Your task to perform on an android device: turn pop-ups on in chrome Image 0: 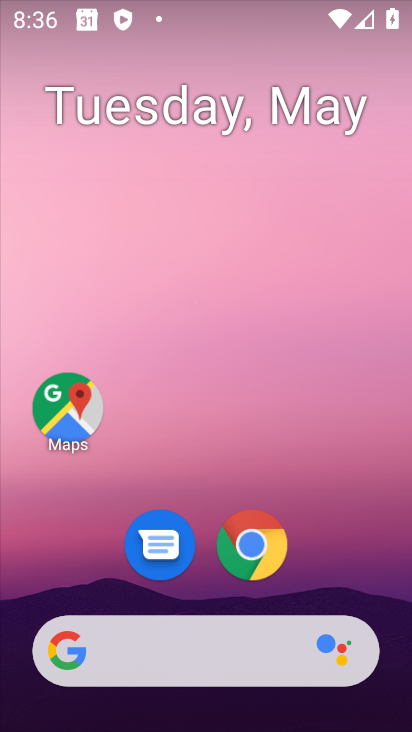
Step 0: drag from (351, 542) to (351, 261)
Your task to perform on an android device: turn pop-ups on in chrome Image 1: 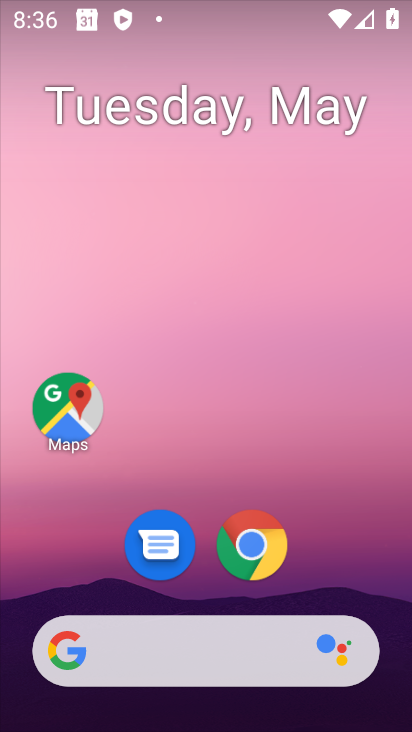
Step 1: drag from (370, 548) to (344, 151)
Your task to perform on an android device: turn pop-ups on in chrome Image 2: 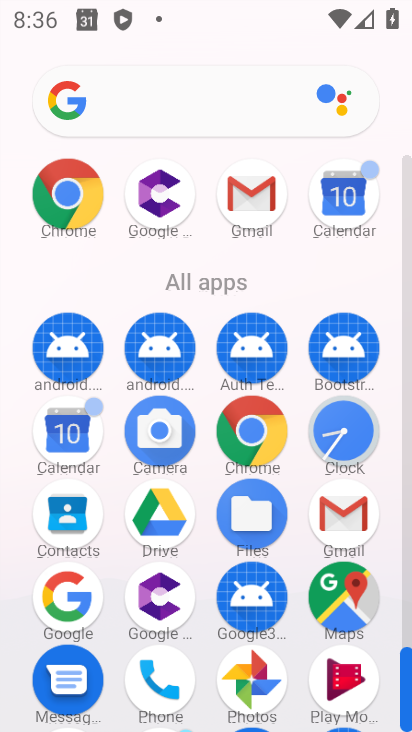
Step 2: click (258, 443)
Your task to perform on an android device: turn pop-ups on in chrome Image 3: 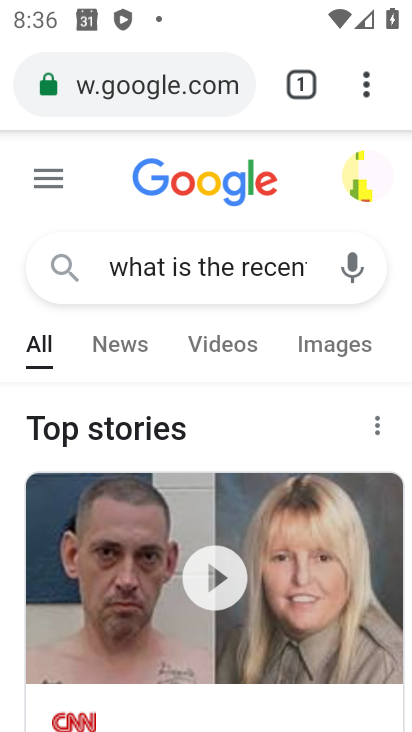
Step 3: drag from (366, 94) to (182, 615)
Your task to perform on an android device: turn pop-ups on in chrome Image 4: 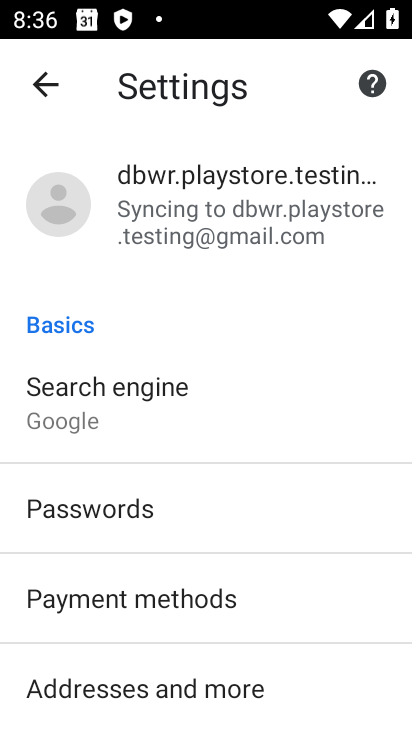
Step 4: drag from (302, 675) to (294, 306)
Your task to perform on an android device: turn pop-ups on in chrome Image 5: 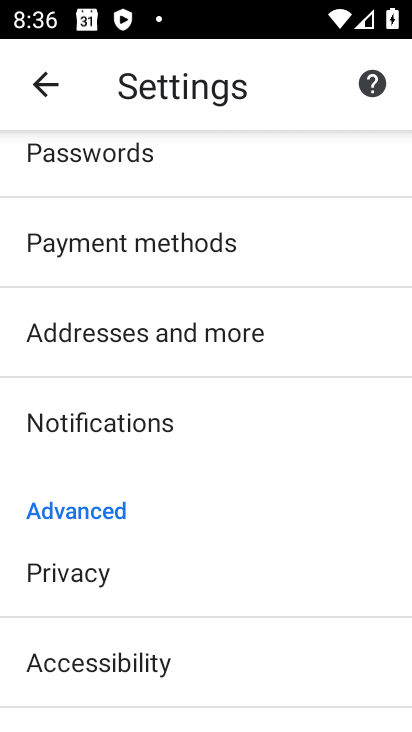
Step 5: drag from (300, 627) to (305, 269)
Your task to perform on an android device: turn pop-ups on in chrome Image 6: 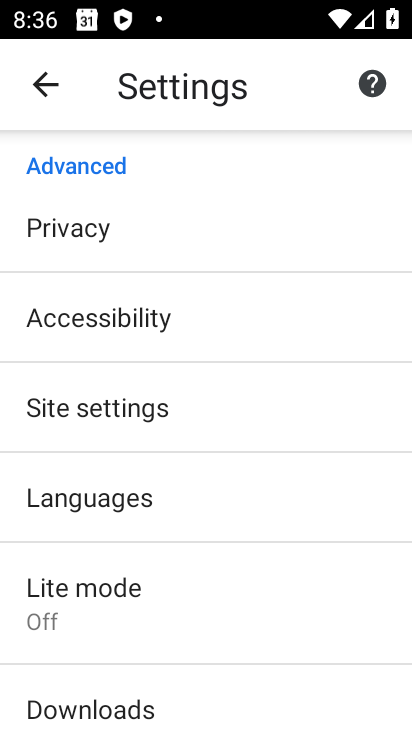
Step 6: click (162, 402)
Your task to perform on an android device: turn pop-ups on in chrome Image 7: 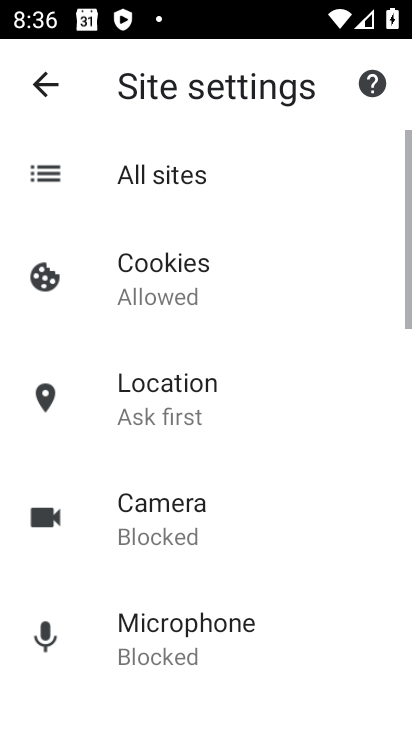
Step 7: drag from (294, 587) to (302, 255)
Your task to perform on an android device: turn pop-ups on in chrome Image 8: 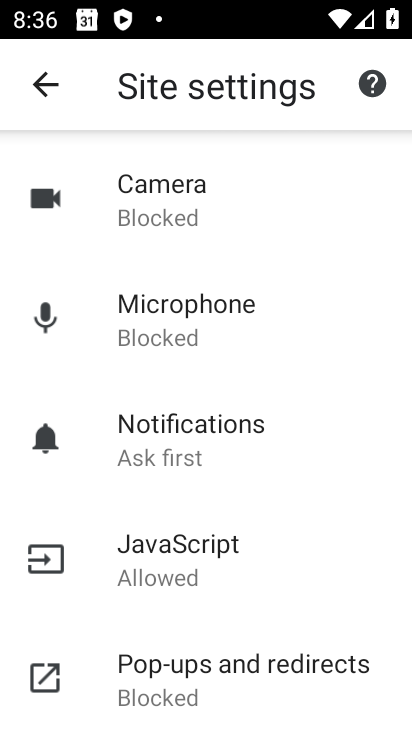
Step 8: click (304, 662)
Your task to perform on an android device: turn pop-ups on in chrome Image 9: 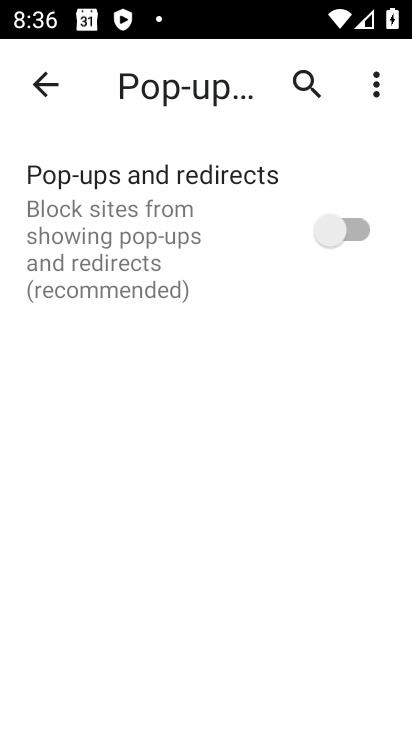
Step 9: click (351, 224)
Your task to perform on an android device: turn pop-ups on in chrome Image 10: 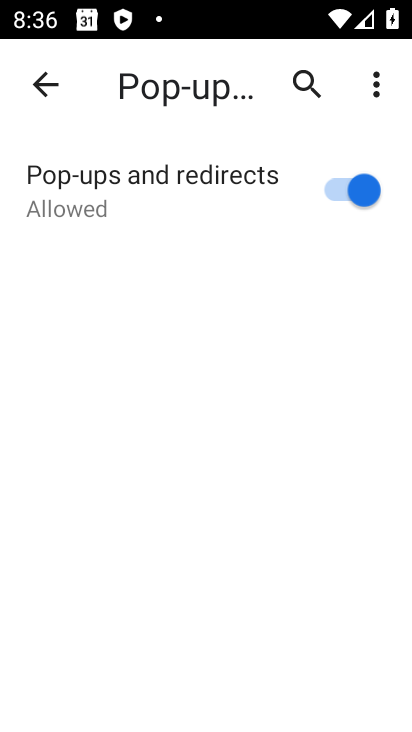
Step 10: task complete